Your task to perform on an android device: Open settings on Google Maps Image 0: 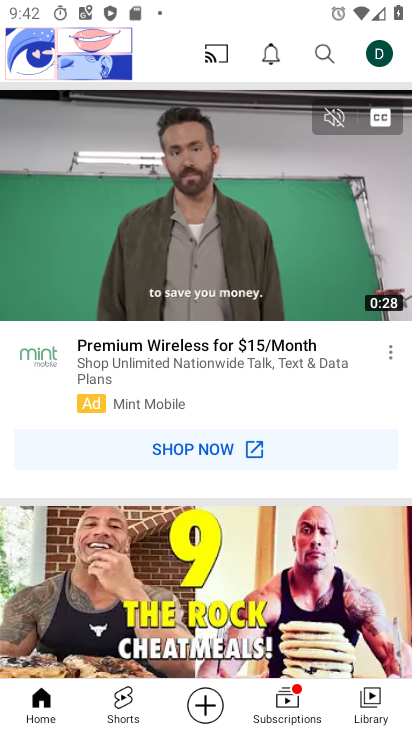
Step 0: press home button
Your task to perform on an android device: Open settings on Google Maps Image 1: 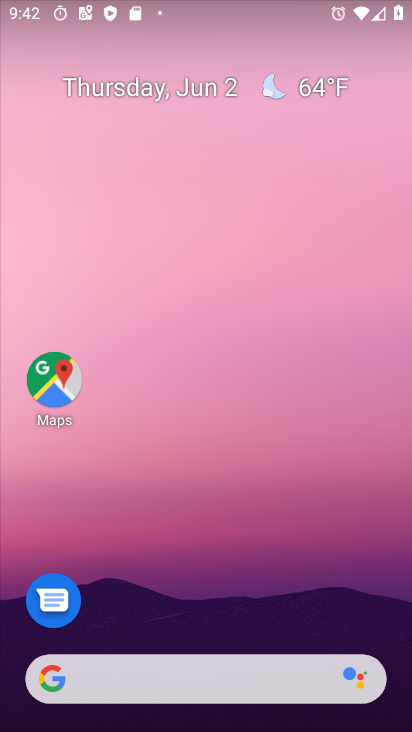
Step 1: click (56, 385)
Your task to perform on an android device: Open settings on Google Maps Image 2: 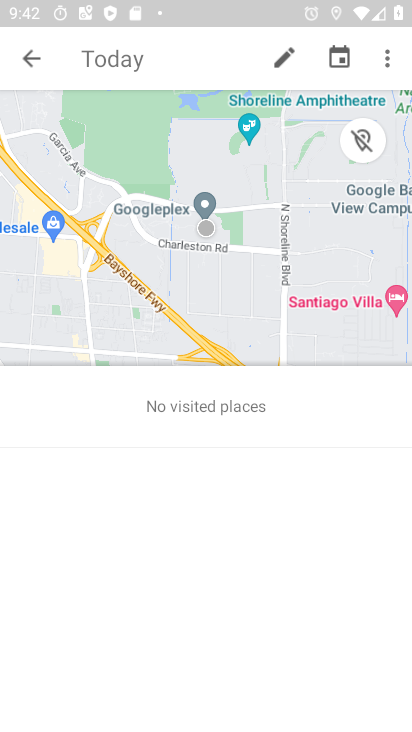
Step 2: press back button
Your task to perform on an android device: Open settings on Google Maps Image 3: 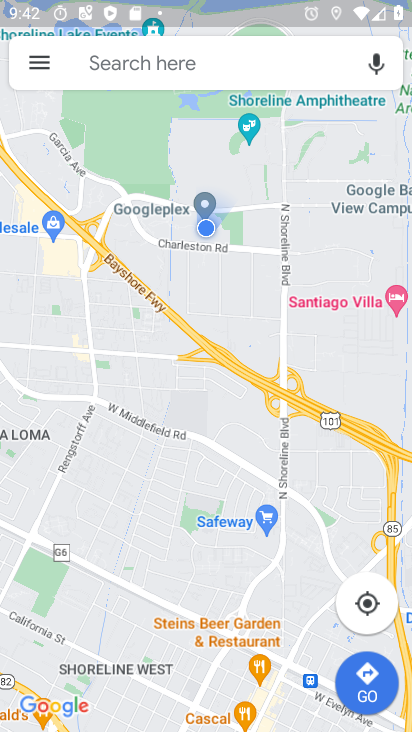
Step 3: click (43, 64)
Your task to perform on an android device: Open settings on Google Maps Image 4: 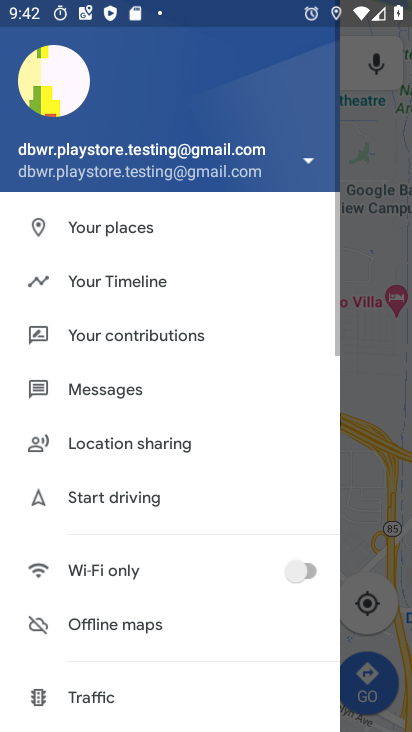
Step 4: drag from (129, 688) to (162, 235)
Your task to perform on an android device: Open settings on Google Maps Image 5: 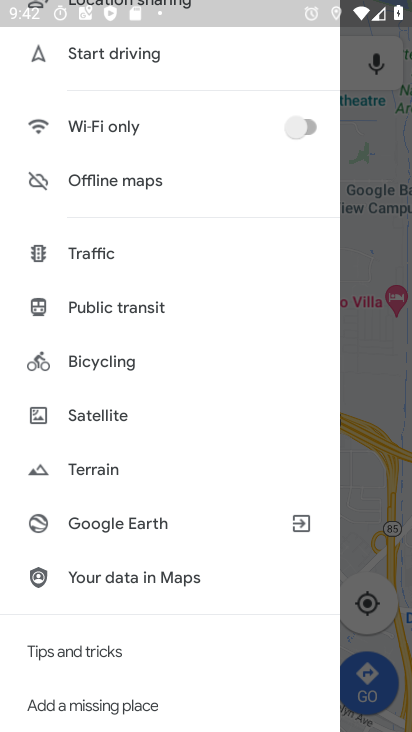
Step 5: drag from (206, 654) to (241, 283)
Your task to perform on an android device: Open settings on Google Maps Image 6: 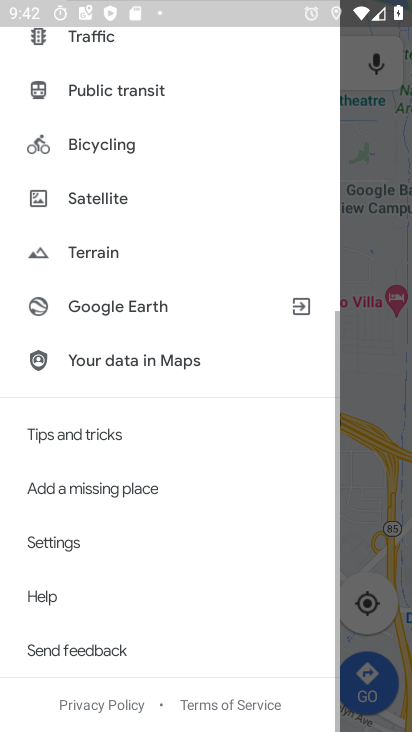
Step 6: click (105, 535)
Your task to perform on an android device: Open settings on Google Maps Image 7: 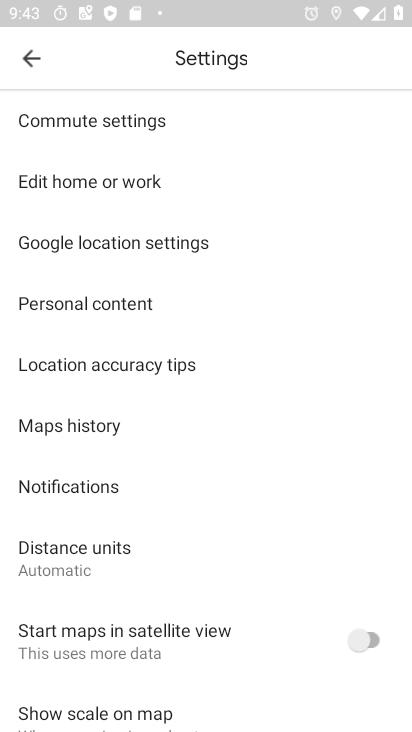
Step 7: task complete